Your task to perform on an android device: Open Youtube and go to "Your channel" Image 0: 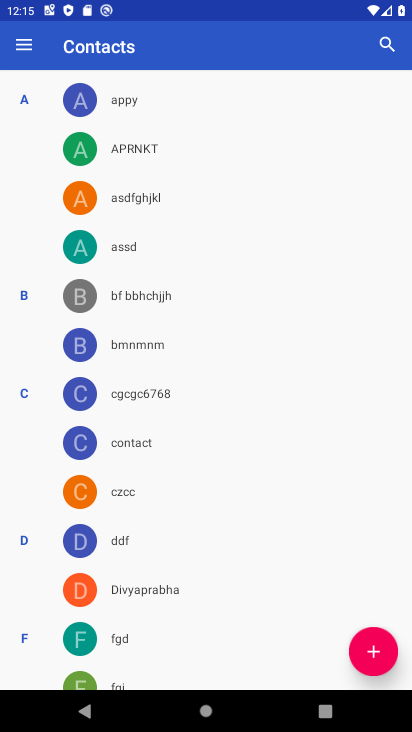
Step 0: press home button
Your task to perform on an android device: Open Youtube and go to "Your channel" Image 1: 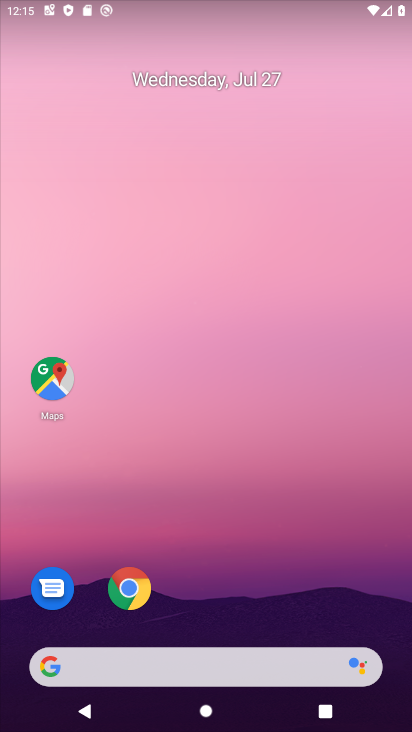
Step 1: drag from (57, 655) to (221, 32)
Your task to perform on an android device: Open Youtube and go to "Your channel" Image 2: 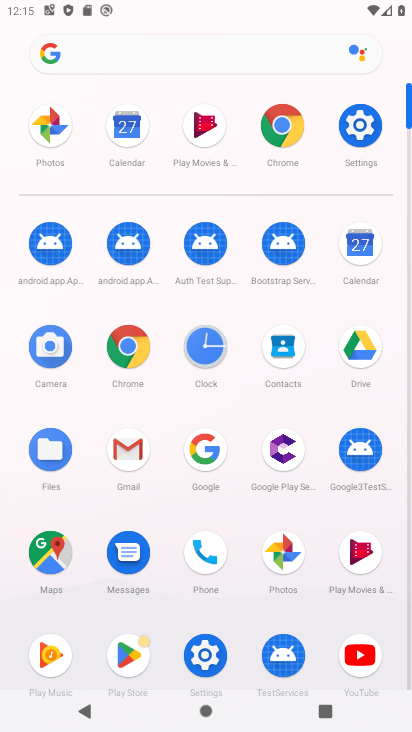
Step 2: click (362, 642)
Your task to perform on an android device: Open Youtube and go to "Your channel" Image 3: 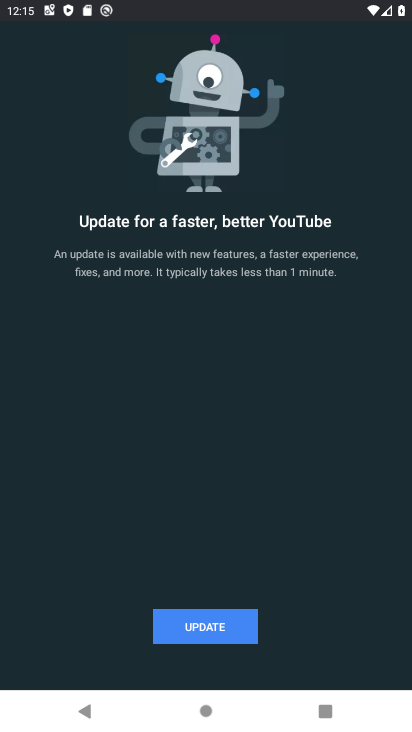
Step 3: task complete